Your task to perform on an android device: change the clock display to show seconds Image 0: 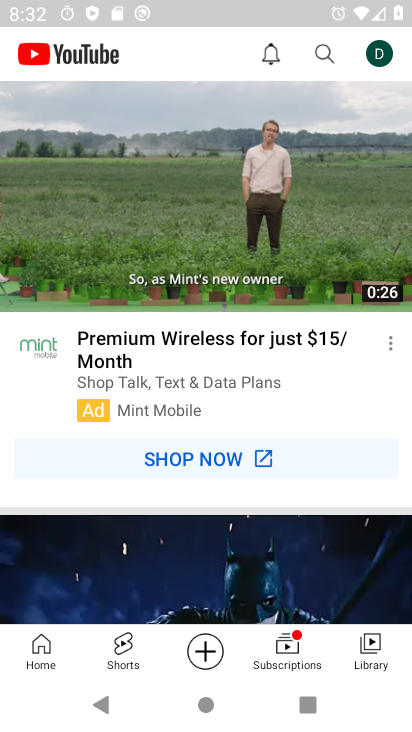
Step 0: press home button
Your task to perform on an android device: change the clock display to show seconds Image 1: 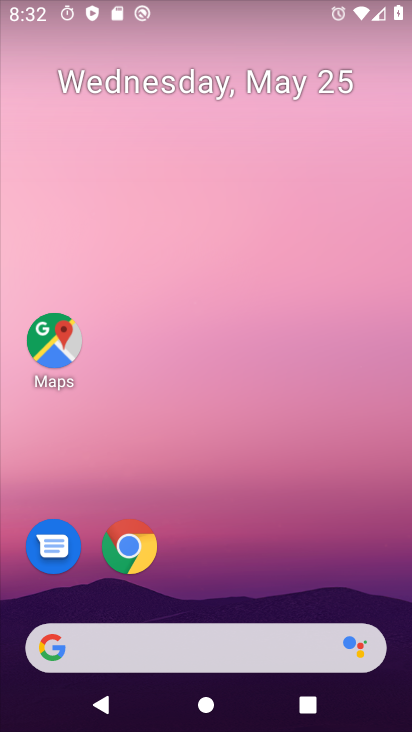
Step 1: drag from (190, 570) to (354, 4)
Your task to perform on an android device: change the clock display to show seconds Image 2: 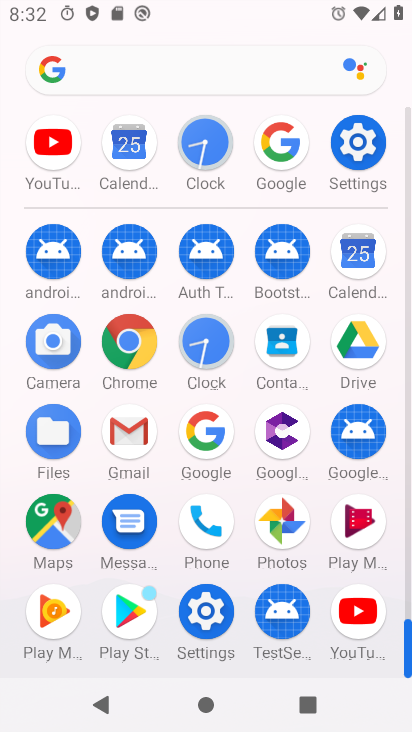
Step 2: click (207, 359)
Your task to perform on an android device: change the clock display to show seconds Image 3: 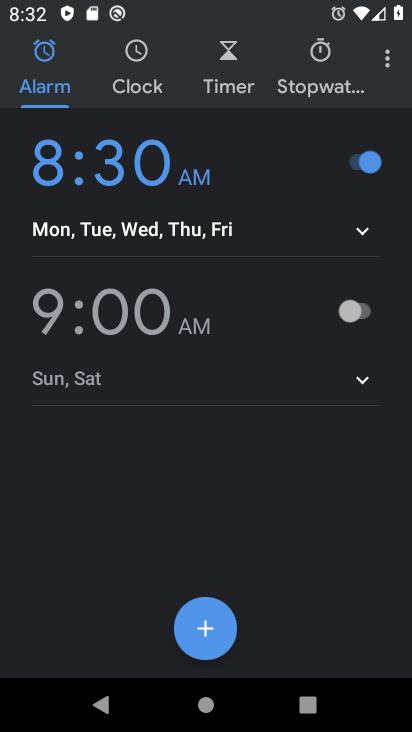
Step 3: click (389, 62)
Your task to perform on an android device: change the clock display to show seconds Image 4: 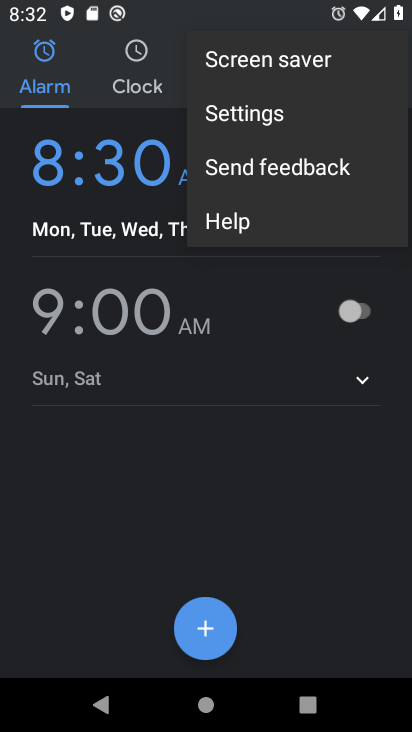
Step 4: click (289, 114)
Your task to perform on an android device: change the clock display to show seconds Image 5: 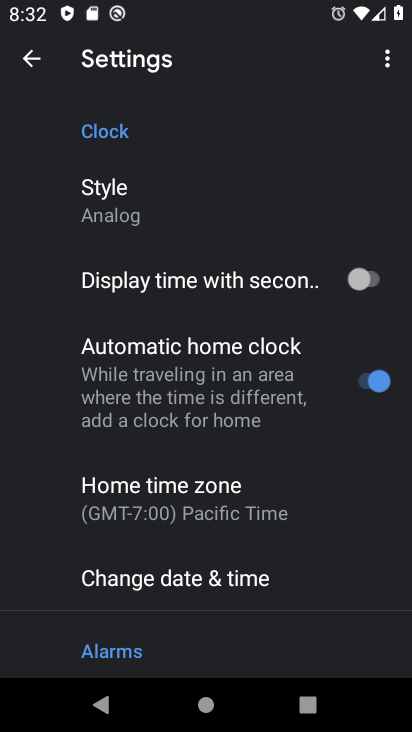
Step 5: click (376, 288)
Your task to perform on an android device: change the clock display to show seconds Image 6: 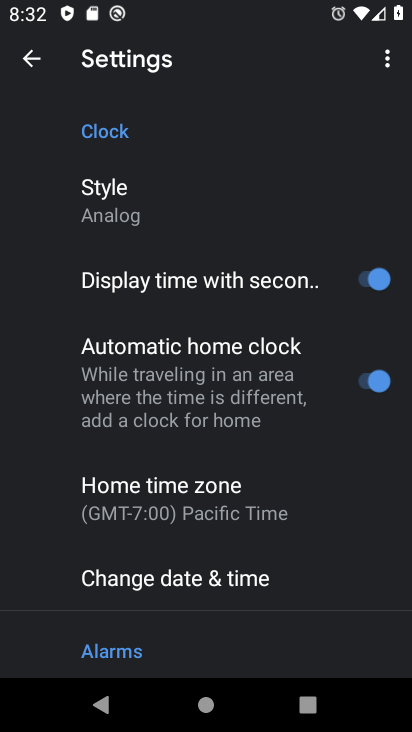
Step 6: task complete